Your task to perform on an android device: turn on sleep mode Image 0: 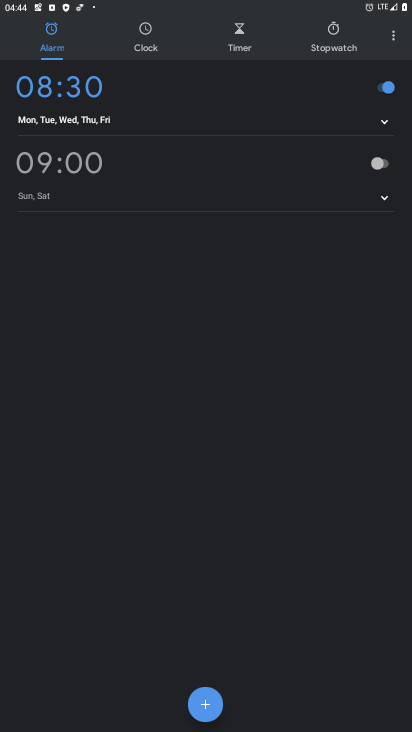
Step 0: press home button
Your task to perform on an android device: turn on sleep mode Image 1: 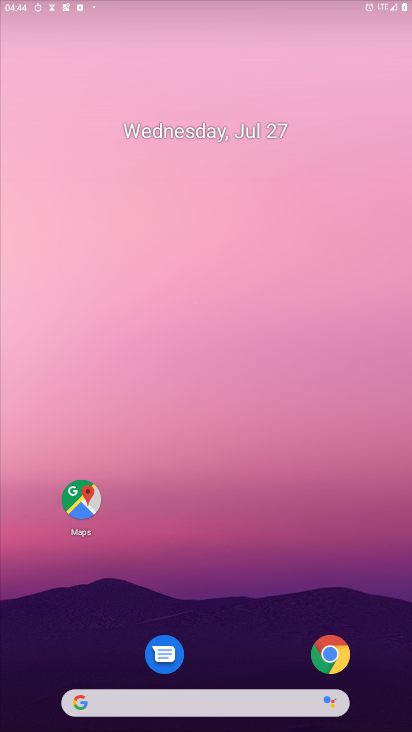
Step 1: drag from (191, 714) to (211, 48)
Your task to perform on an android device: turn on sleep mode Image 2: 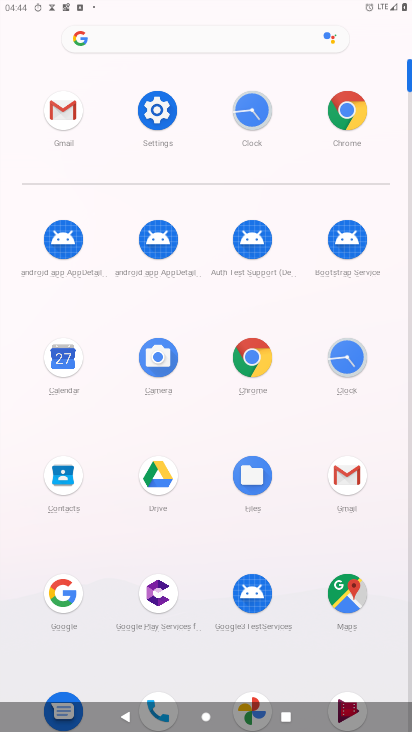
Step 2: click (166, 111)
Your task to perform on an android device: turn on sleep mode Image 3: 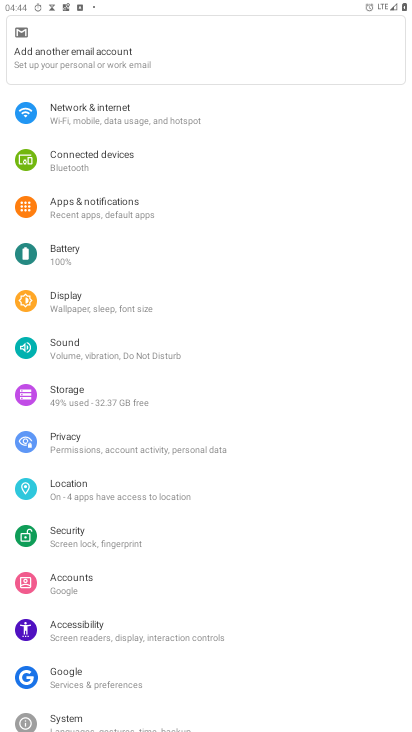
Step 3: click (122, 309)
Your task to perform on an android device: turn on sleep mode Image 4: 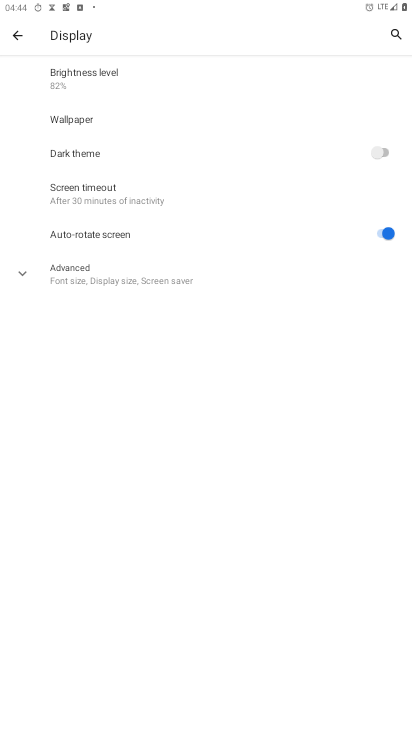
Step 4: task complete